Your task to perform on an android device: refresh tabs in the chrome app Image 0: 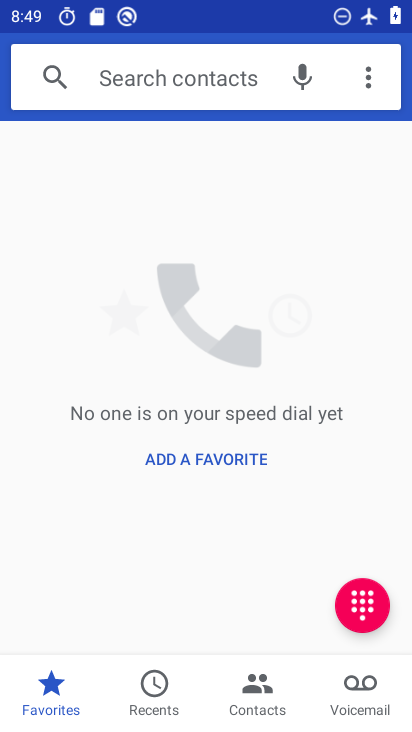
Step 0: press back button
Your task to perform on an android device: refresh tabs in the chrome app Image 1: 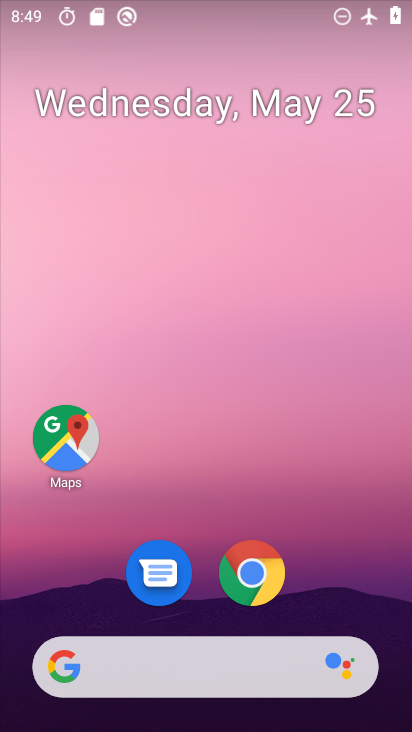
Step 1: click (243, 576)
Your task to perform on an android device: refresh tabs in the chrome app Image 2: 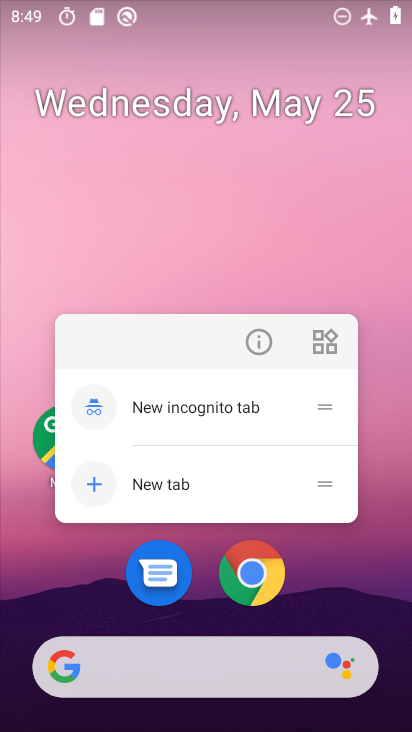
Step 2: click (252, 576)
Your task to perform on an android device: refresh tabs in the chrome app Image 3: 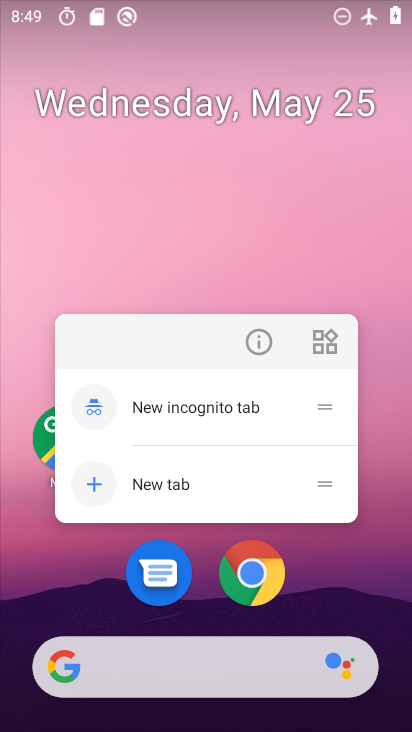
Step 3: click (252, 576)
Your task to perform on an android device: refresh tabs in the chrome app Image 4: 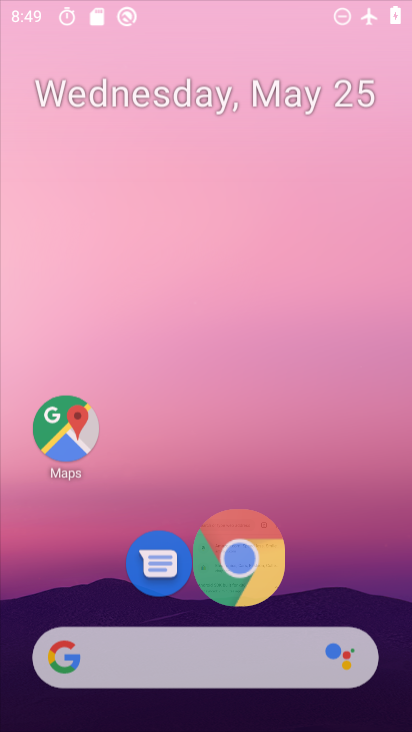
Step 4: click (252, 574)
Your task to perform on an android device: refresh tabs in the chrome app Image 5: 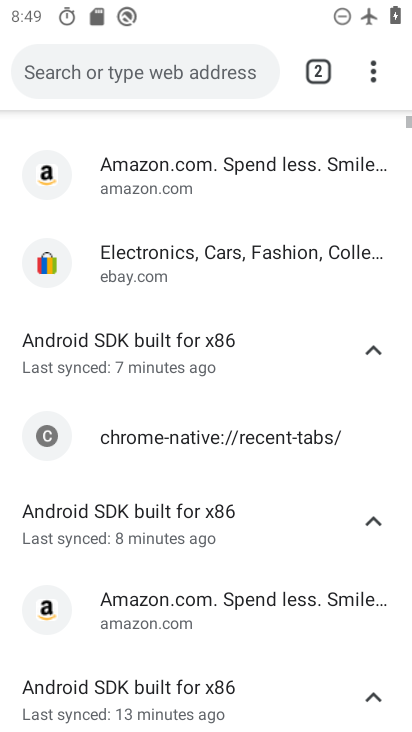
Step 5: click (362, 61)
Your task to perform on an android device: refresh tabs in the chrome app Image 6: 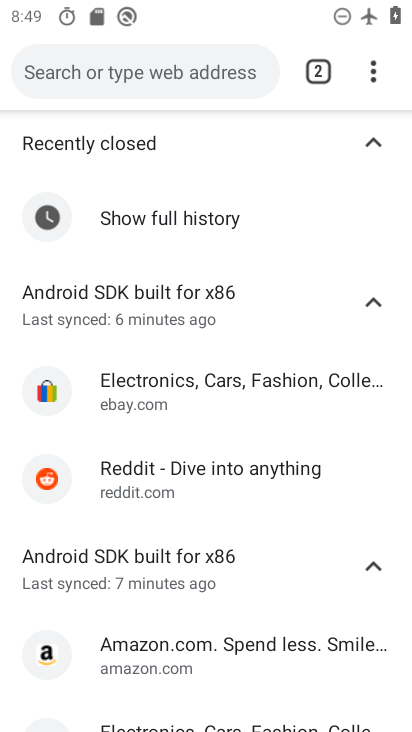
Step 6: click (370, 70)
Your task to perform on an android device: refresh tabs in the chrome app Image 7: 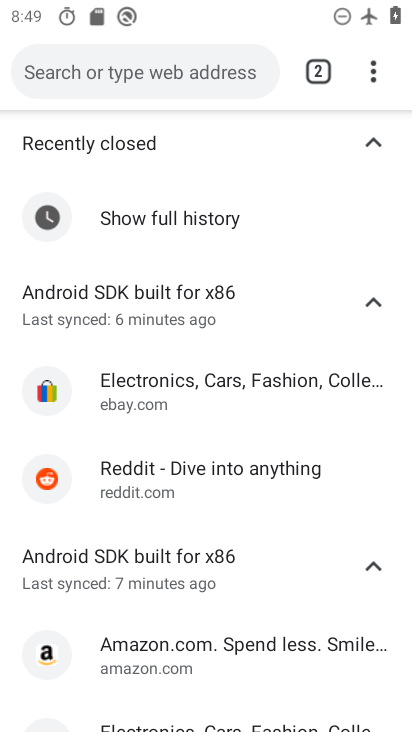
Step 7: click (376, 73)
Your task to perform on an android device: refresh tabs in the chrome app Image 8: 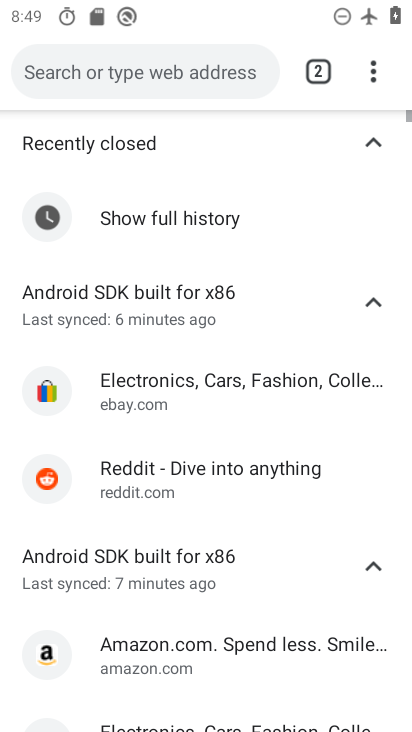
Step 8: click (369, 73)
Your task to perform on an android device: refresh tabs in the chrome app Image 9: 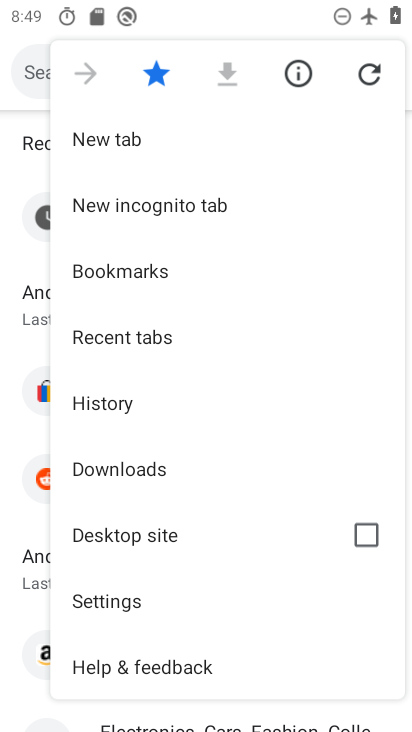
Step 9: click (364, 67)
Your task to perform on an android device: refresh tabs in the chrome app Image 10: 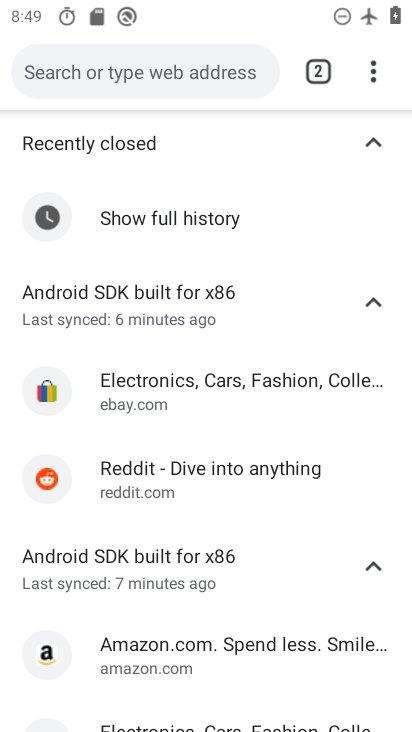
Step 10: task complete